Your task to perform on an android device: turn on airplane mode Image 0: 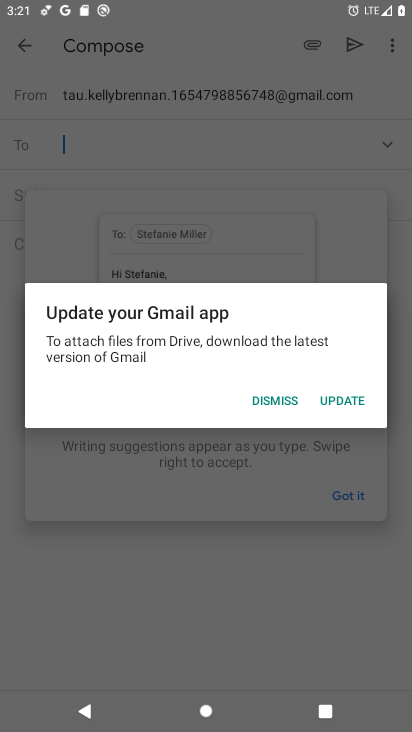
Step 0: press home button
Your task to perform on an android device: turn on airplane mode Image 1: 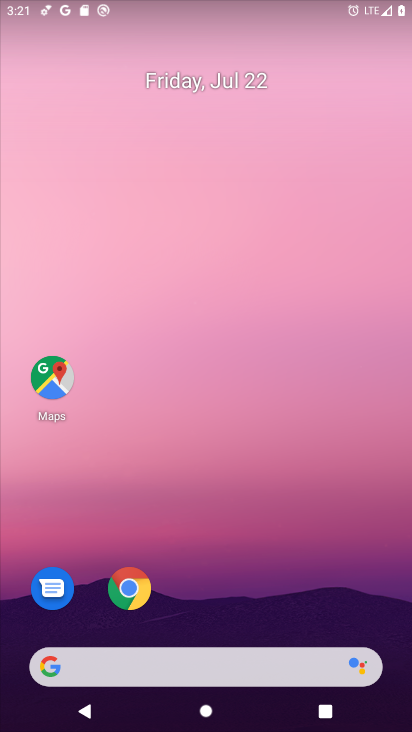
Step 1: drag from (249, 14) to (197, 386)
Your task to perform on an android device: turn on airplane mode Image 2: 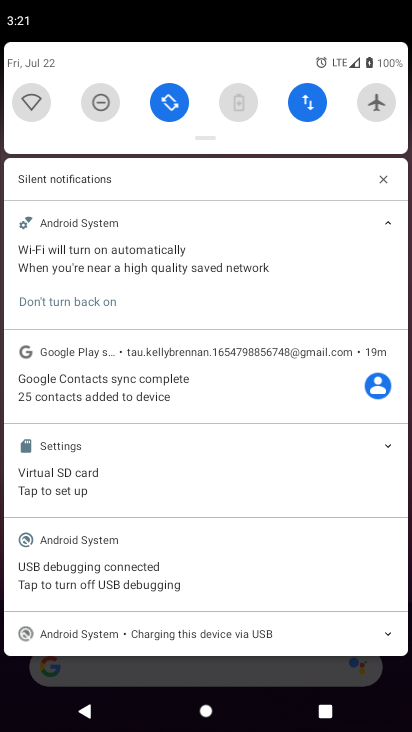
Step 2: click (372, 101)
Your task to perform on an android device: turn on airplane mode Image 3: 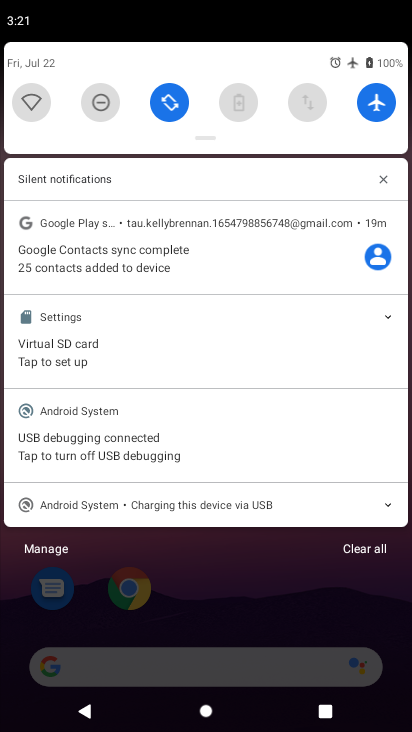
Step 3: task complete